Your task to perform on an android device: Open battery settings Image 0: 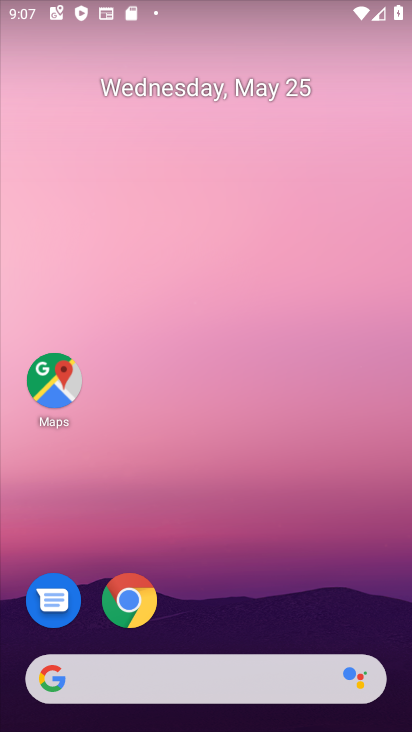
Step 0: drag from (243, 615) to (177, 14)
Your task to perform on an android device: Open battery settings Image 1: 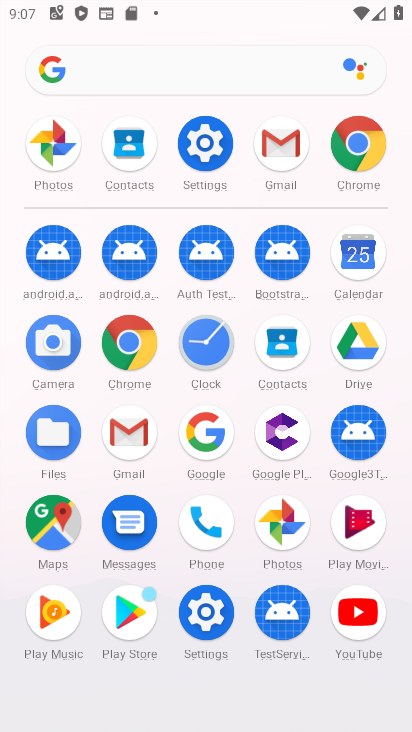
Step 1: click (204, 610)
Your task to perform on an android device: Open battery settings Image 2: 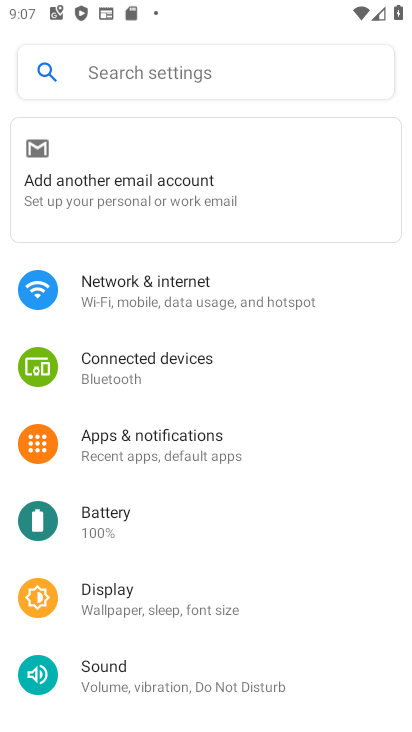
Step 2: drag from (202, 609) to (223, 321)
Your task to perform on an android device: Open battery settings Image 3: 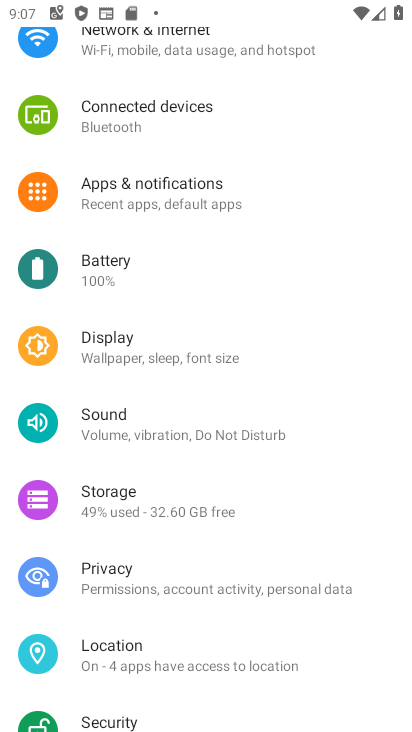
Step 3: click (143, 260)
Your task to perform on an android device: Open battery settings Image 4: 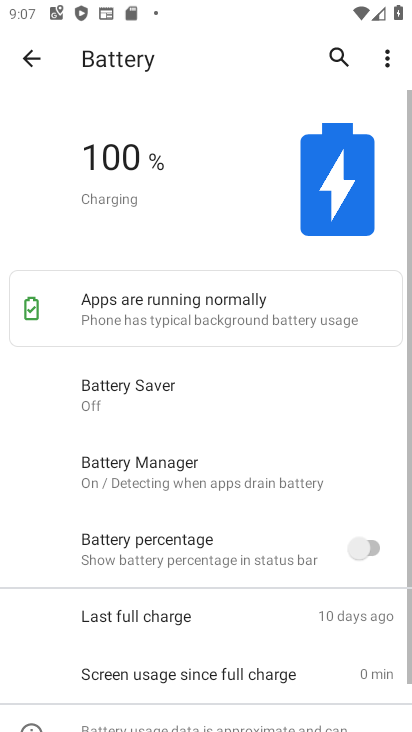
Step 4: drag from (219, 605) to (248, 149)
Your task to perform on an android device: Open battery settings Image 5: 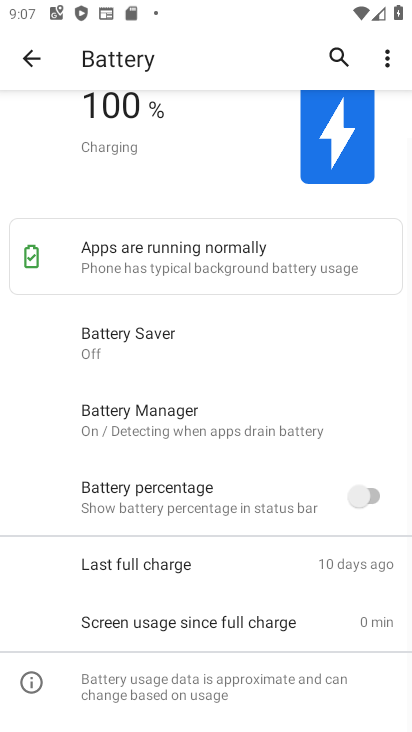
Step 5: drag from (246, 181) to (274, 635)
Your task to perform on an android device: Open battery settings Image 6: 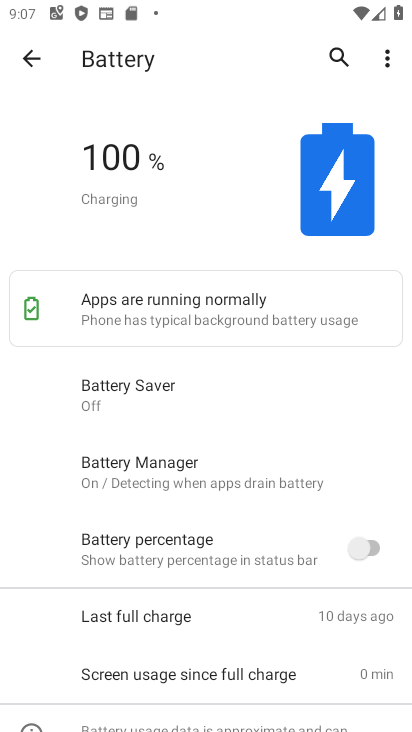
Step 6: drag from (386, 63) to (322, 58)
Your task to perform on an android device: Open battery settings Image 7: 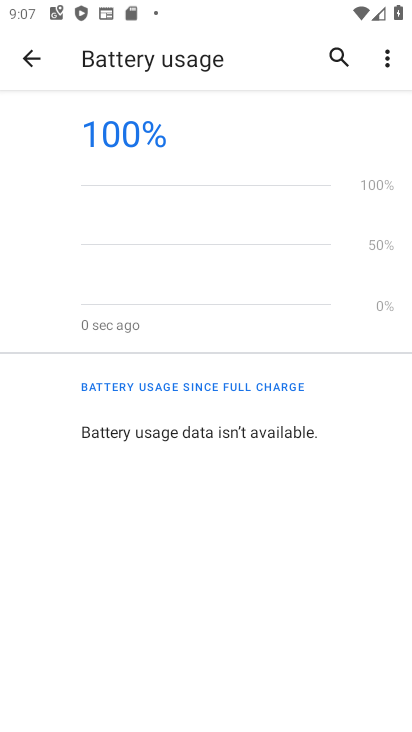
Step 7: click (28, 60)
Your task to perform on an android device: Open battery settings Image 8: 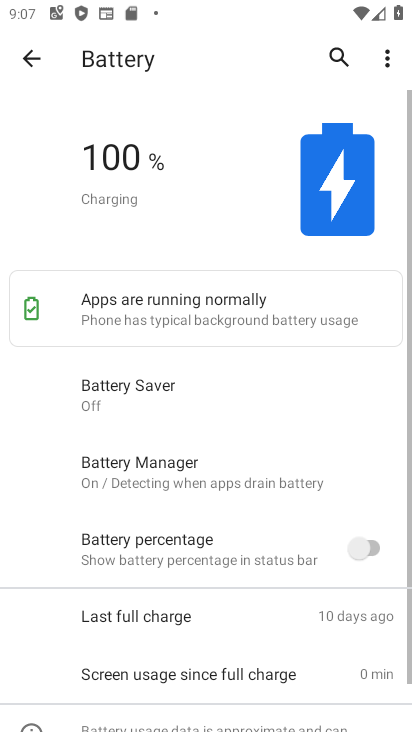
Step 8: task complete